Your task to perform on an android device: Go to location settings Image 0: 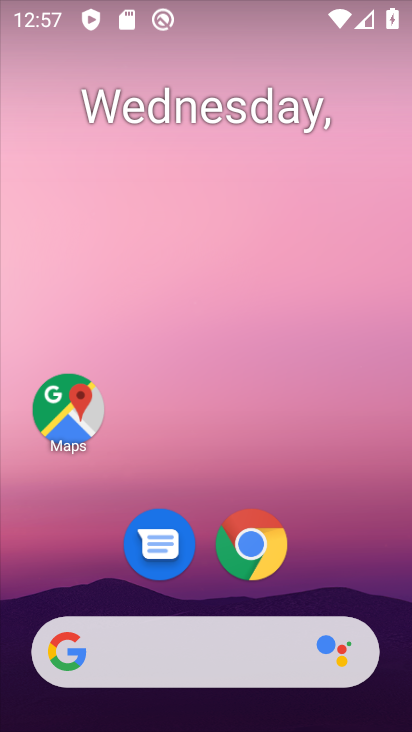
Step 0: drag from (355, 543) to (308, 91)
Your task to perform on an android device: Go to location settings Image 1: 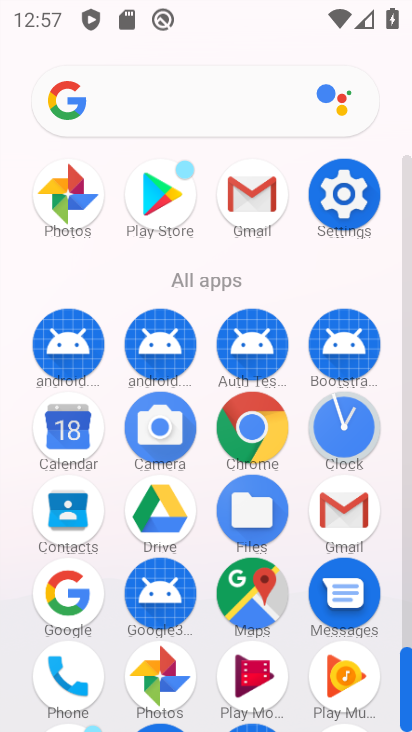
Step 1: click (338, 200)
Your task to perform on an android device: Go to location settings Image 2: 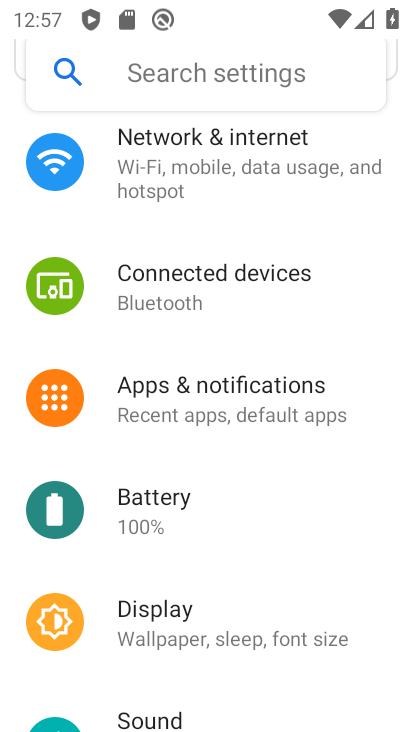
Step 2: drag from (313, 549) to (305, 157)
Your task to perform on an android device: Go to location settings Image 3: 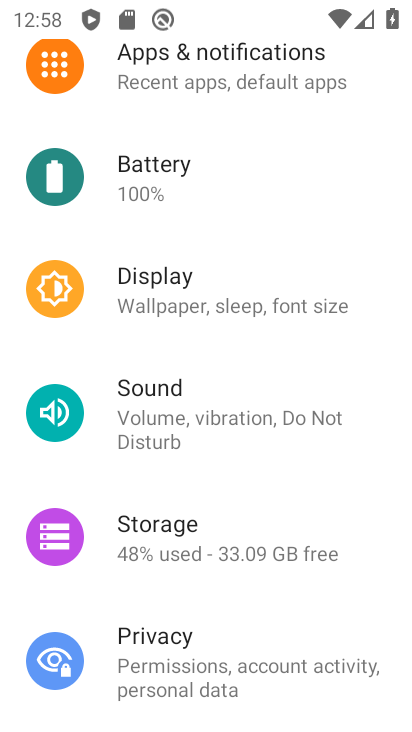
Step 3: drag from (243, 623) to (203, 136)
Your task to perform on an android device: Go to location settings Image 4: 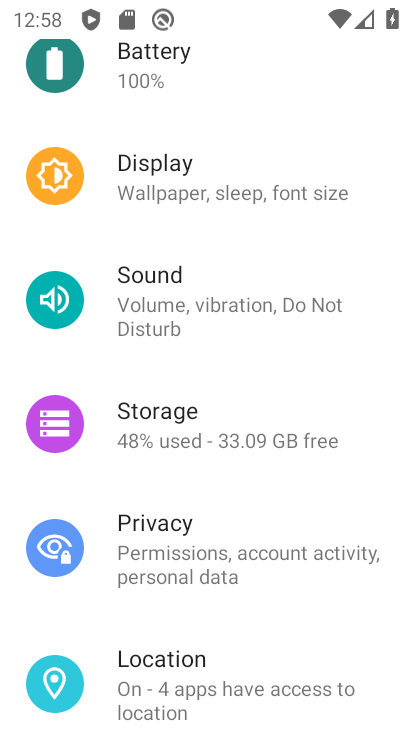
Step 4: click (237, 684)
Your task to perform on an android device: Go to location settings Image 5: 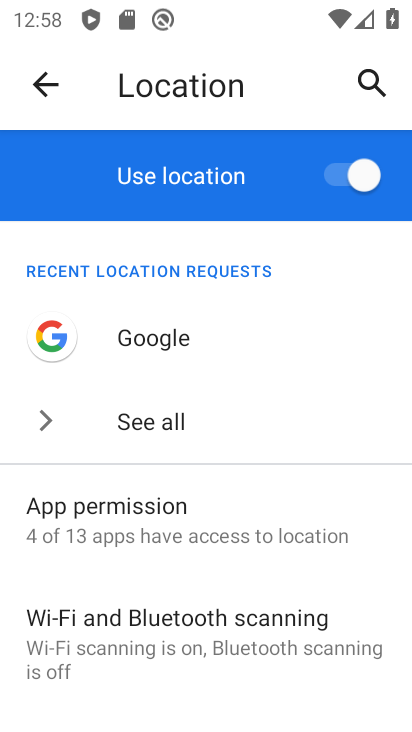
Step 5: task complete